Your task to perform on an android device: delete location history Image 0: 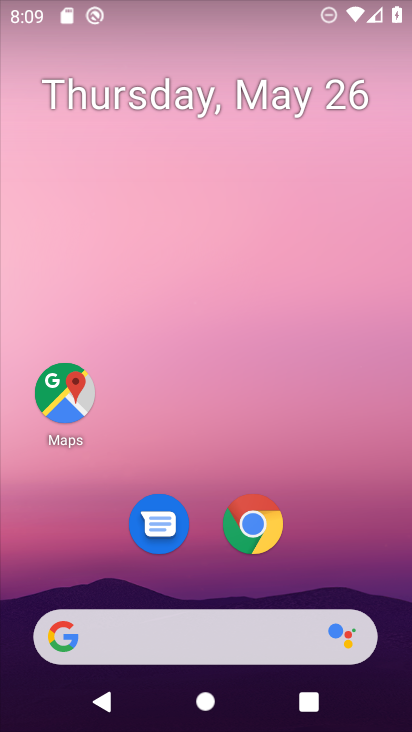
Step 0: click (74, 388)
Your task to perform on an android device: delete location history Image 1: 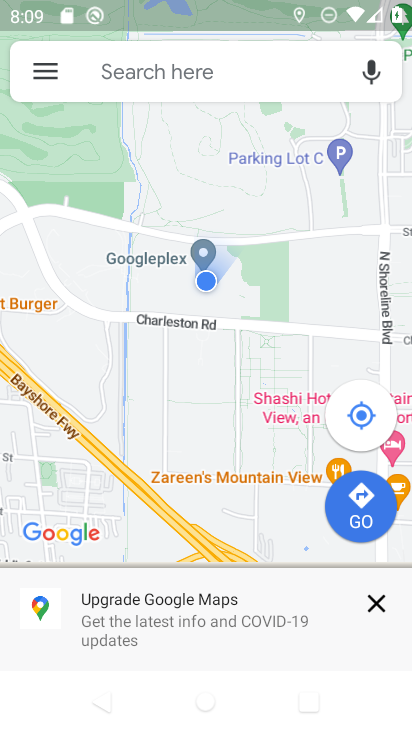
Step 1: click (40, 70)
Your task to perform on an android device: delete location history Image 2: 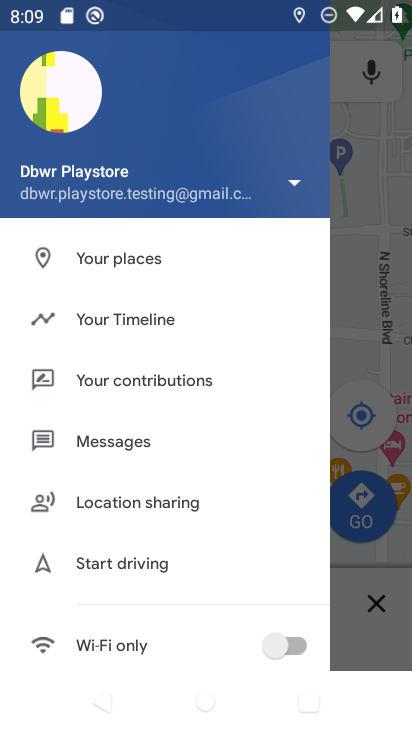
Step 2: click (116, 305)
Your task to perform on an android device: delete location history Image 3: 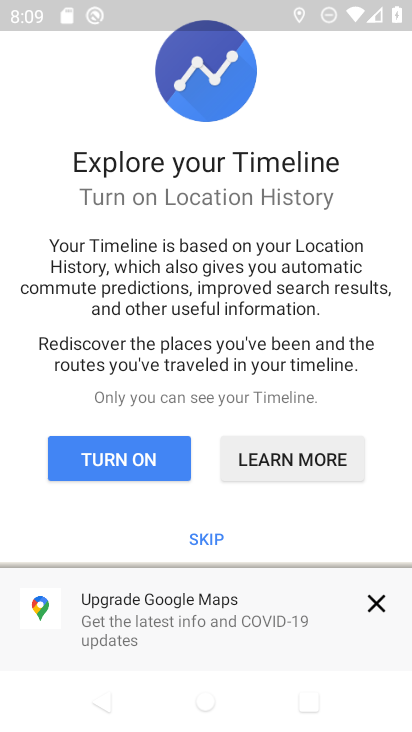
Step 3: click (166, 457)
Your task to perform on an android device: delete location history Image 4: 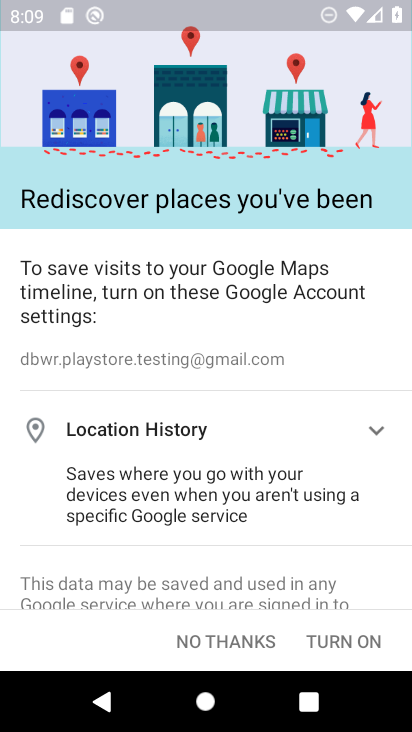
Step 4: click (357, 635)
Your task to perform on an android device: delete location history Image 5: 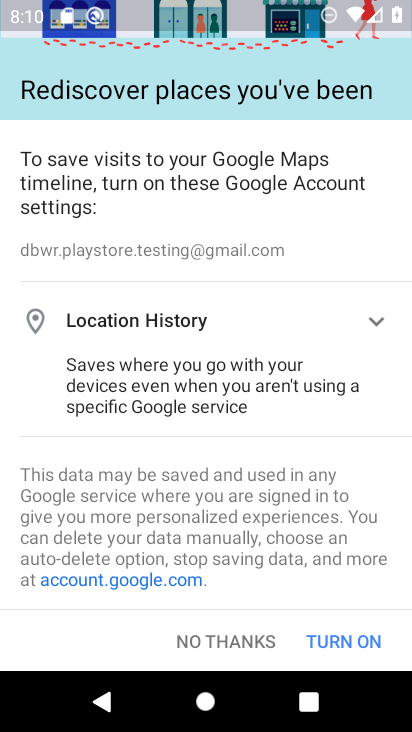
Step 5: click (357, 635)
Your task to perform on an android device: delete location history Image 6: 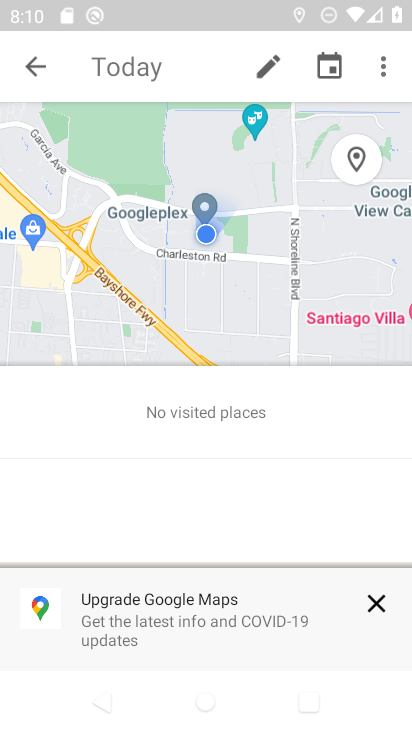
Step 6: click (379, 64)
Your task to perform on an android device: delete location history Image 7: 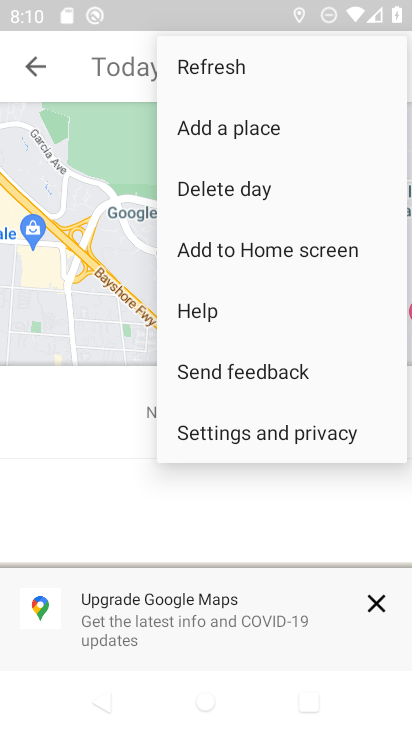
Step 7: click (326, 434)
Your task to perform on an android device: delete location history Image 8: 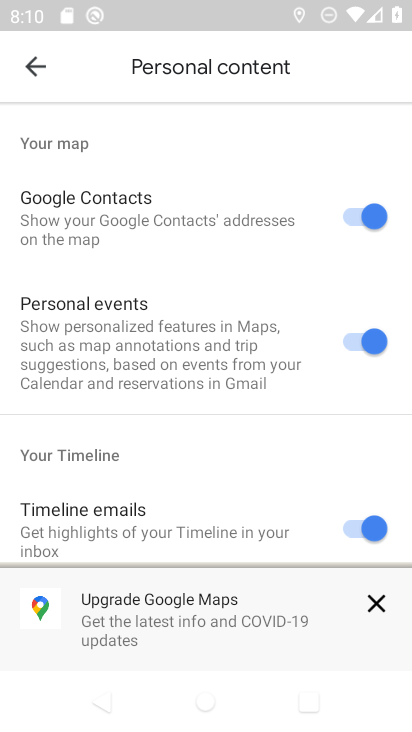
Step 8: drag from (205, 492) to (227, 111)
Your task to perform on an android device: delete location history Image 9: 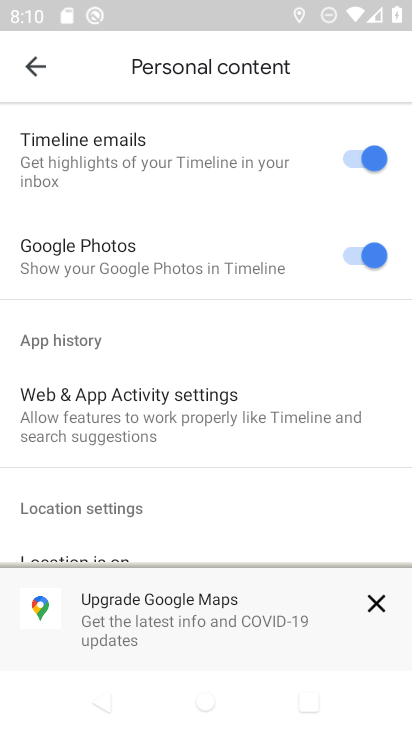
Step 9: drag from (197, 489) to (184, 106)
Your task to perform on an android device: delete location history Image 10: 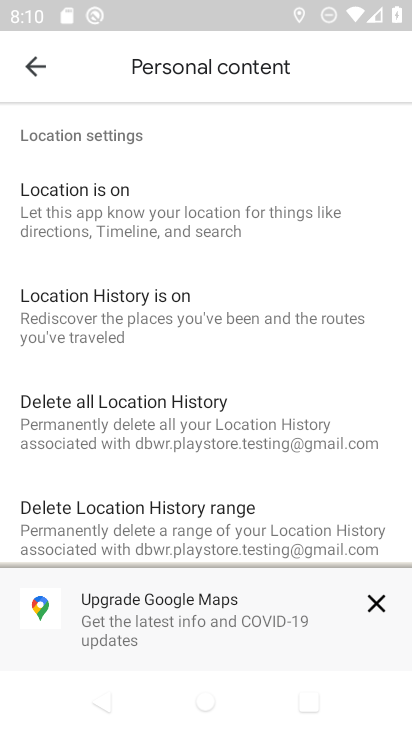
Step 10: click (372, 600)
Your task to perform on an android device: delete location history Image 11: 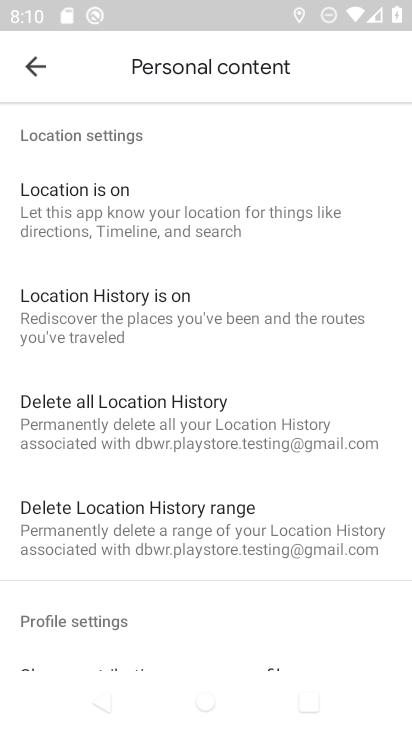
Step 11: click (171, 416)
Your task to perform on an android device: delete location history Image 12: 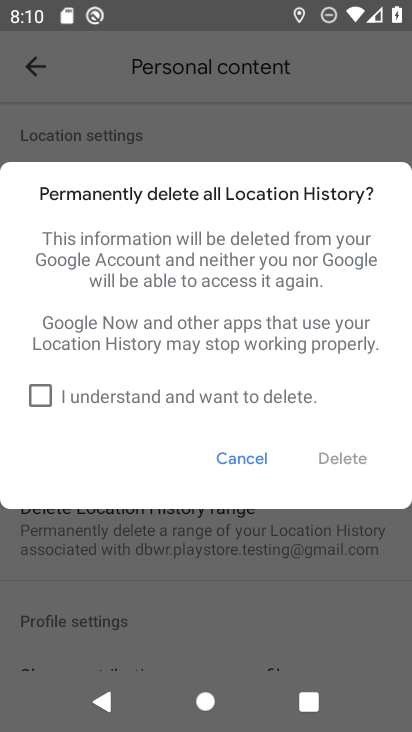
Step 12: click (46, 395)
Your task to perform on an android device: delete location history Image 13: 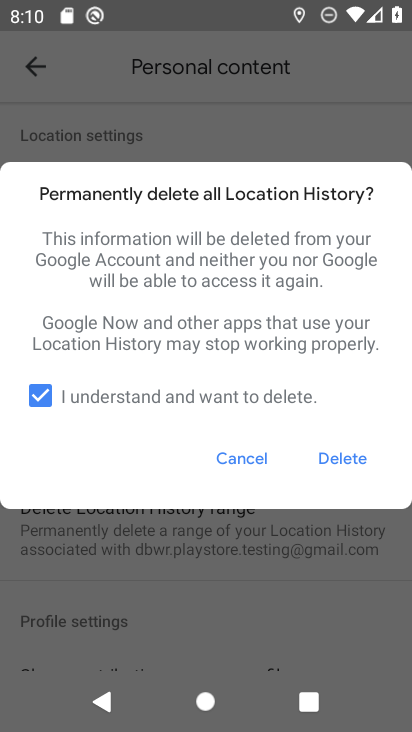
Step 13: click (333, 451)
Your task to perform on an android device: delete location history Image 14: 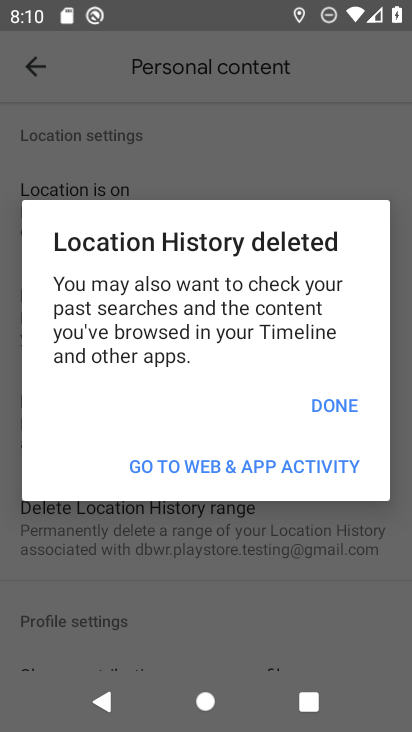
Step 14: click (330, 398)
Your task to perform on an android device: delete location history Image 15: 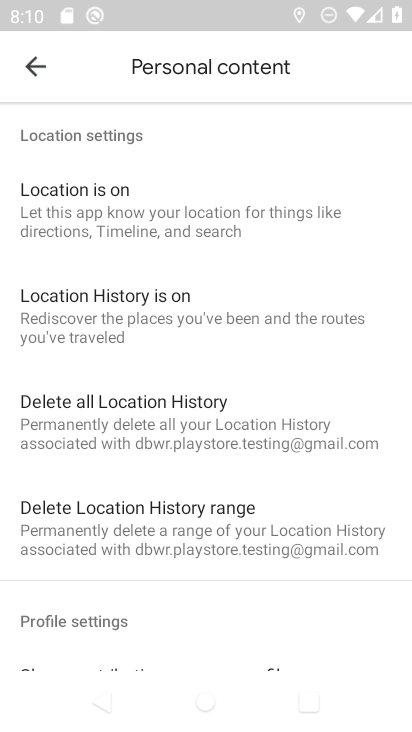
Step 15: task complete